Your task to perform on an android device: turn off airplane mode Image 0: 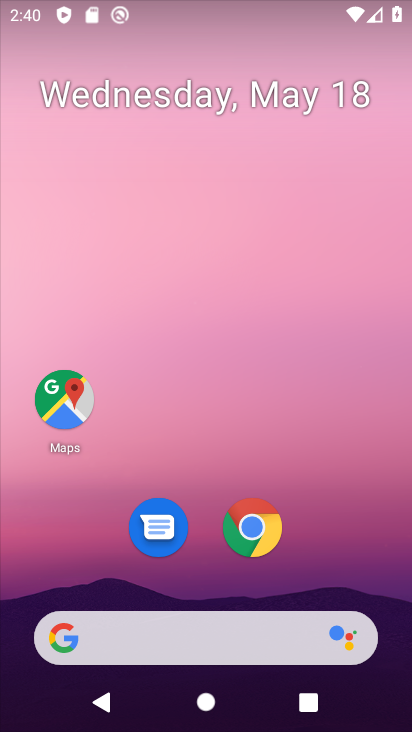
Step 0: drag from (233, 613) to (391, 289)
Your task to perform on an android device: turn off airplane mode Image 1: 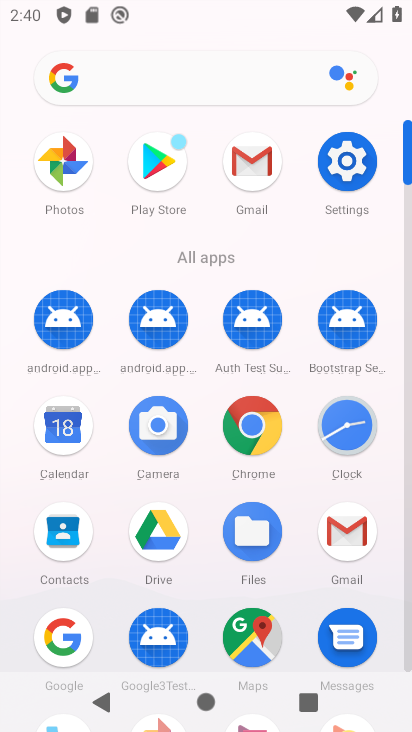
Step 1: click (350, 166)
Your task to perform on an android device: turn off airplane mode Image 2: 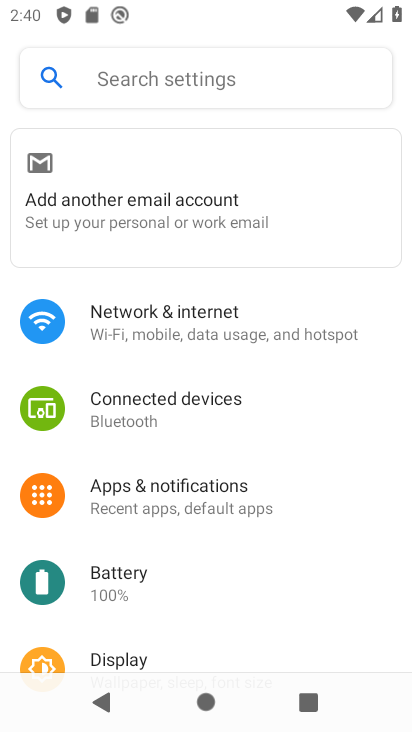
Step 2: click (182, 334)
Your task to perform on an android device: turn off airplane mode Image 3: 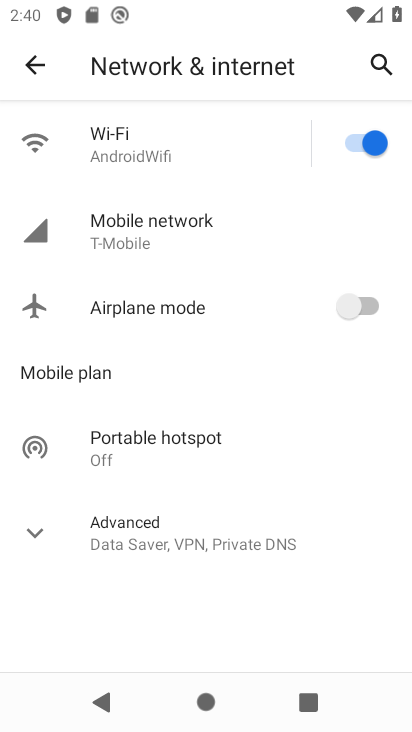
Step 3: task complete